Your task to perform on an android device: Search for pizza restaurants on Maps Image 0: 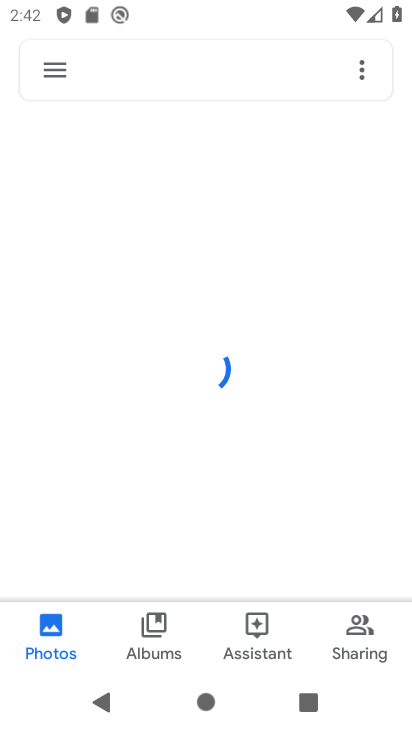
Step 0: press home button
Your task to perform on an android device: Search for pizza restaurants on Maps Image 1: 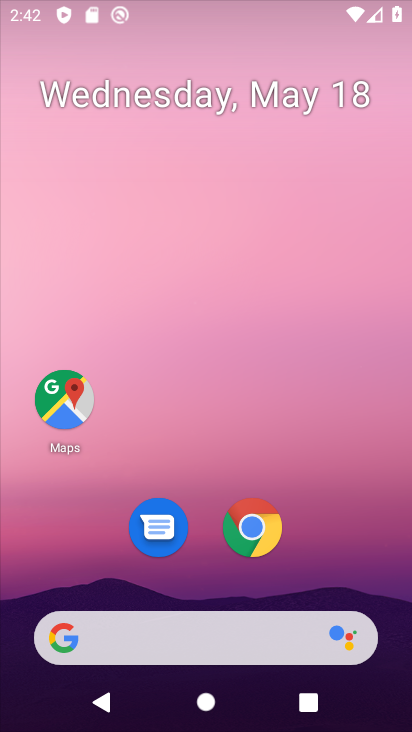
Step 1: drag from (193, 590) to (115, 36)
Your task to perform on an android device: Search for pizza restaurants on Maps Image 2: 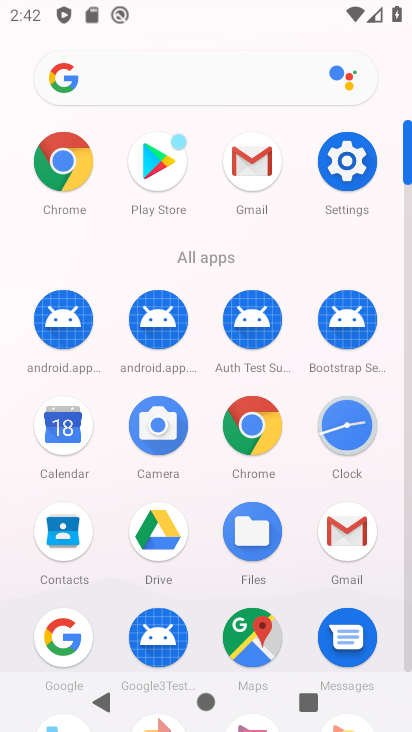
Step 2: click (257, 650)
Your task to perform on an android device: Search for pizza restaurants on Maps Image 3: 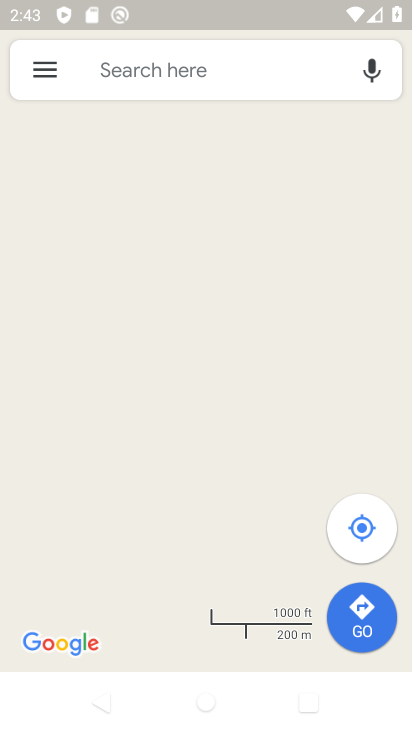
Step 3: click (206, 79)
Your task to perform on an android device: Search for pizza restaurants on Maps Image 4: 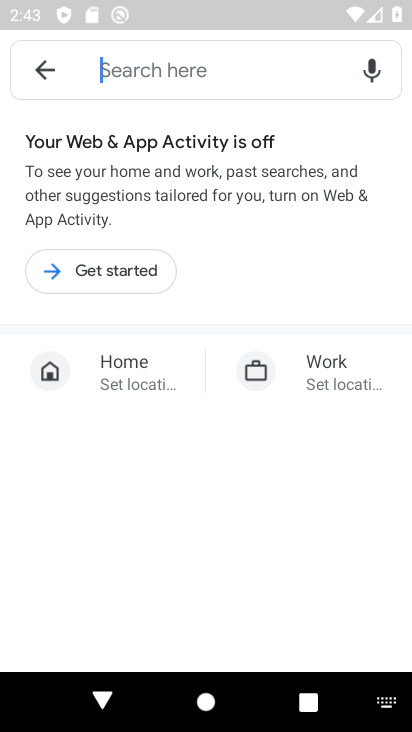
Step 4: click (98, 263)
Your task to perform on an android device: Search for pizza restaurants on Maps Image 5: 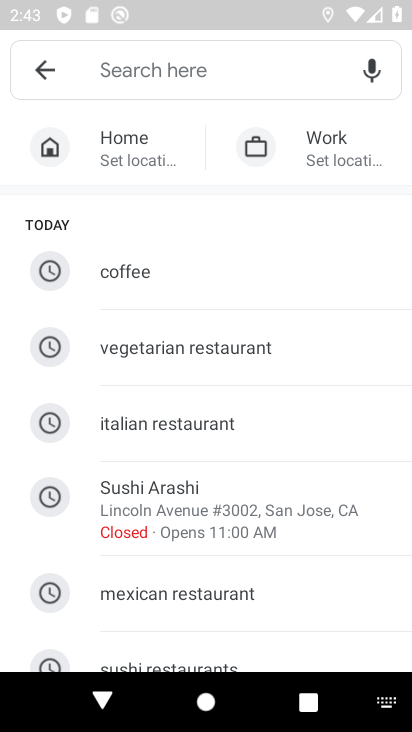
Step 5: drag from (172, 533) to (111, 222)
Your task to perform on an android device: Search for pizza restaurants on Maps Image 6: 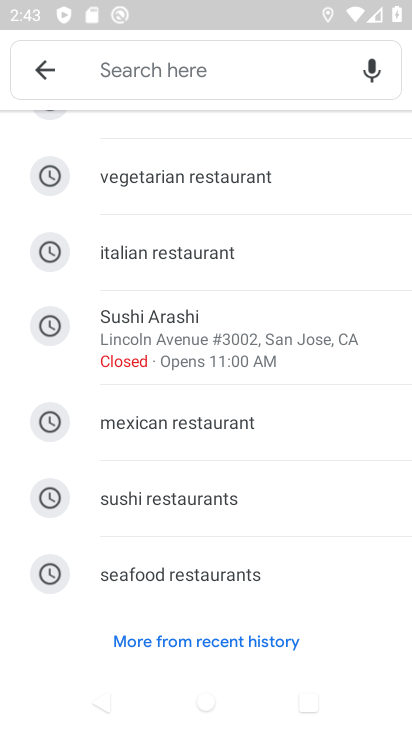
Step 6: click (176, 637)
Your task to perform on an android device: Search for pizza restaurants on Maps Image 7: 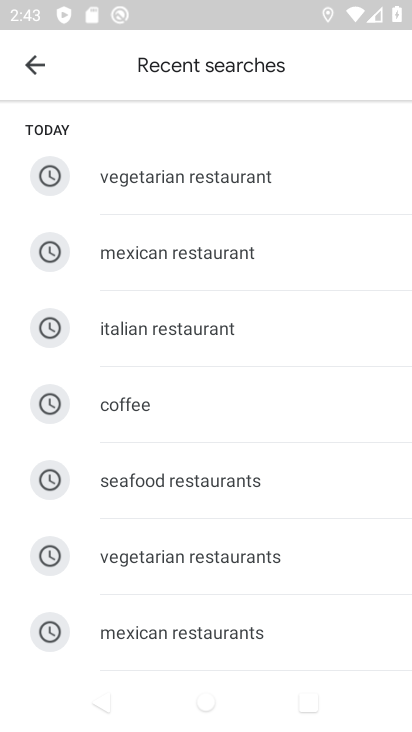
Step 7: drag from (176, 533) to (126, 191)
Your task to perform on an android device: Search for pizza restaurants on Maps Image 8: 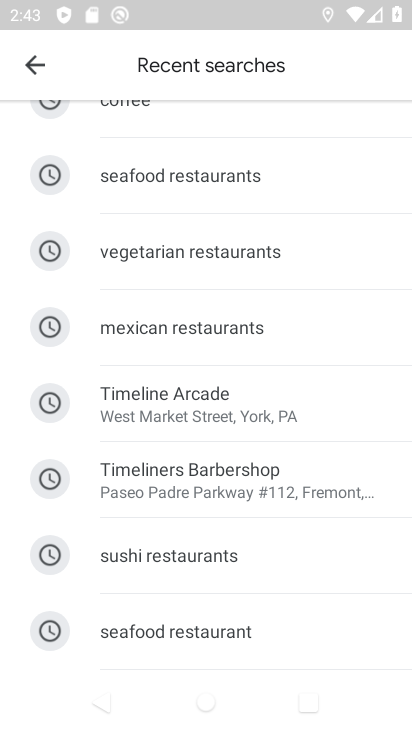
Step 8: drag from (179, 426) to (151, 694)
Your task to perform on an android device: Search for pizza restaurants on Maps Image 9: 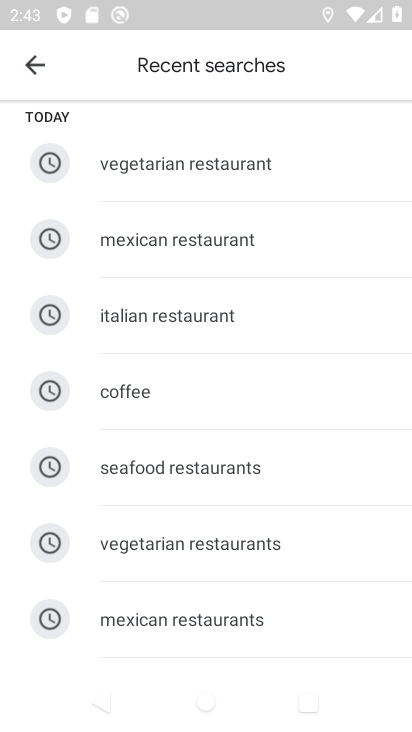
Step 9: drag from (160, 210) to (160, 634)
Your task to perform on an android device: Search for pizza restaurants on Maps Image 10: 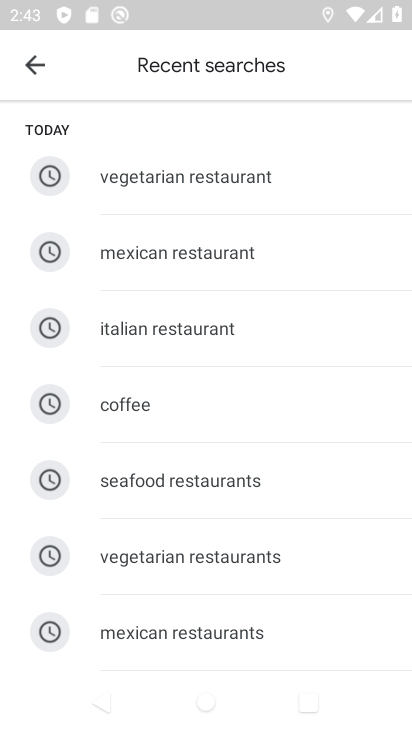
Step 10: click (35, 70)
Your task to perform on an android device: Search for pizza restaurants on Maps Image 11: 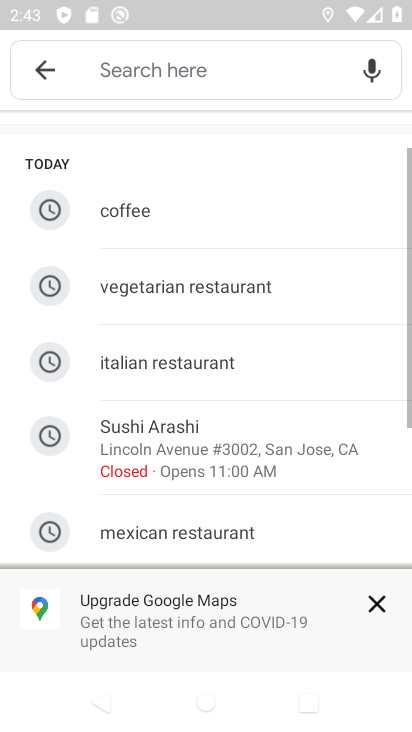
Step 11: drag from (178, 529) to (136, 109)
Your task to perform on an android device: Search for pizza restaurants on Maps Image 12: 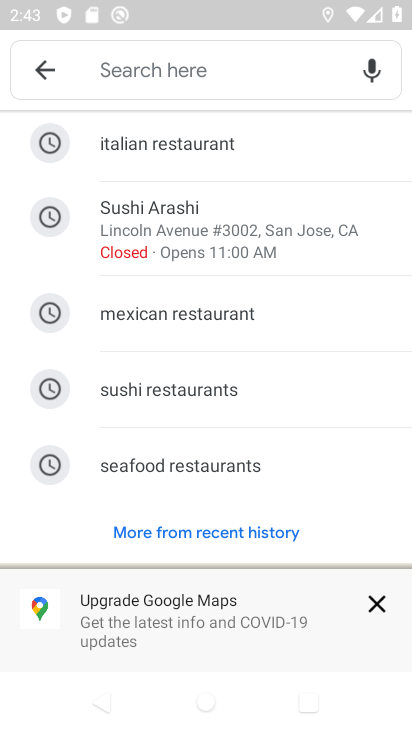
Step 12: click (226, 538)
Your task to perform on an android device: Search for pizza restaurants on Maps Image 13: 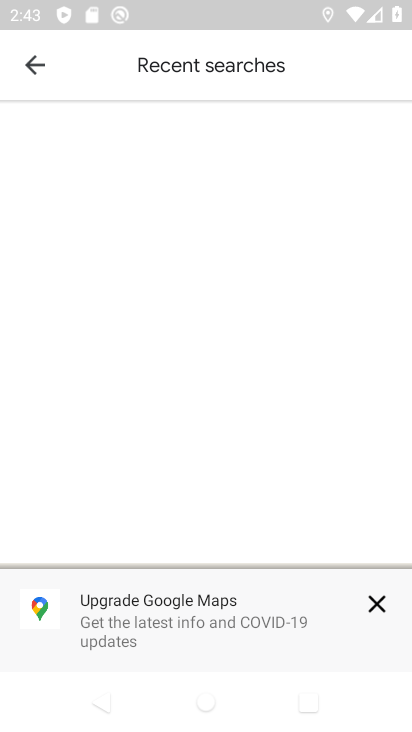
Step 13: drag from (226, 538) to (166, 107)
Your task to perform on an android device: Search for pizza restaurants on Maps Image 14: 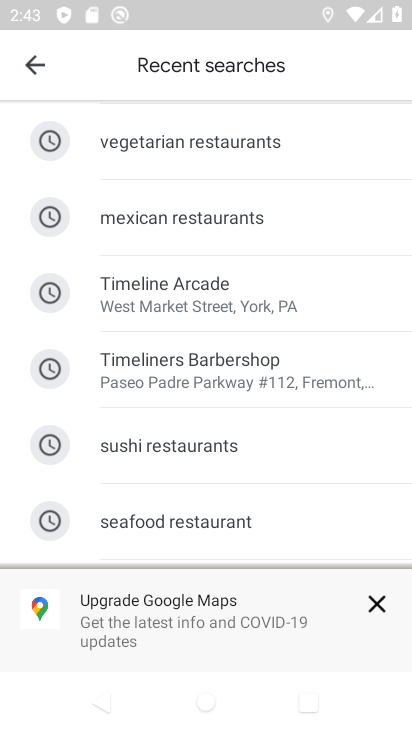
Step 14: click (371, 608)
Your task to perform on an android device: Search for pizza restaurants on Maps Image 15: 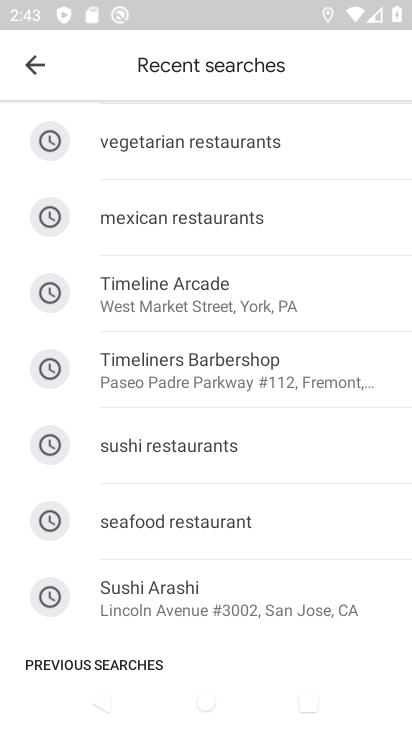
Step 15: drag from (275, 549) to (222, 167)
Your task to perform on an android device: Search for pizza restaurants on Maps Image 16: 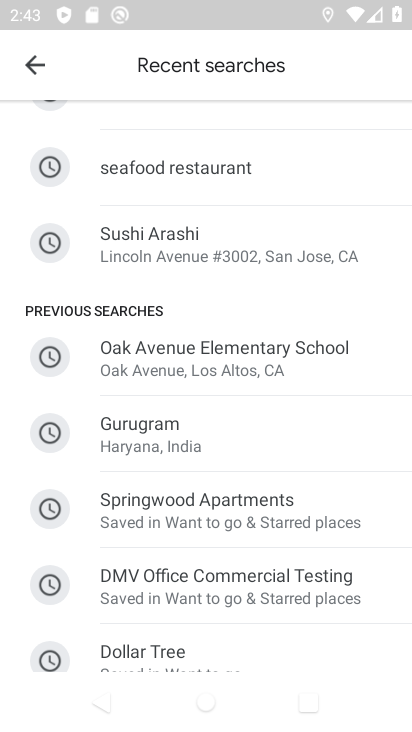
Step 16: click (28, 68)
Your task to perform on an android device: Search for pizza restaurants on Maps Image 17: 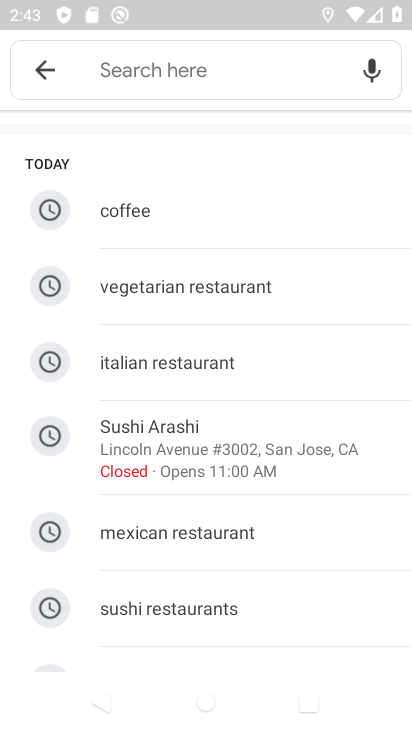
Step 17: click (120, 91)
Your task to perform on an android device: Search for pizza restaurants on Maps Image 18: 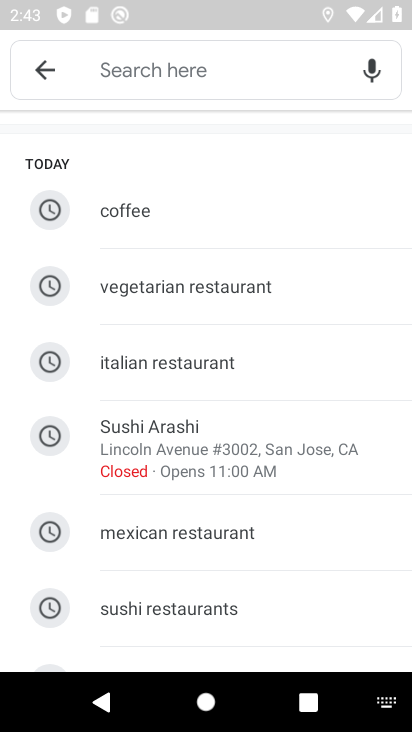
Step 18: type "pizza resturants"
Your task to perform on an android device: Search for pizza restaurants on Maps Image 19: 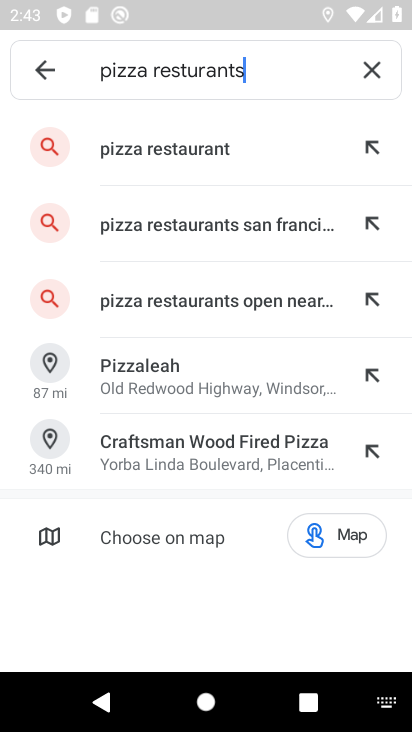
Step 19: click (153, 152)
Your task to perform on an android device: Search for pizza restaurants on Maps Image 20: 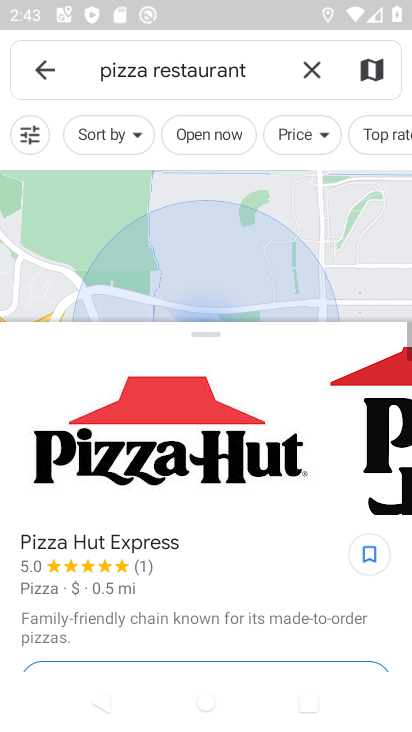
Step 20: task complete